Your task to perform on an android device: What's the weather today? Image 0: 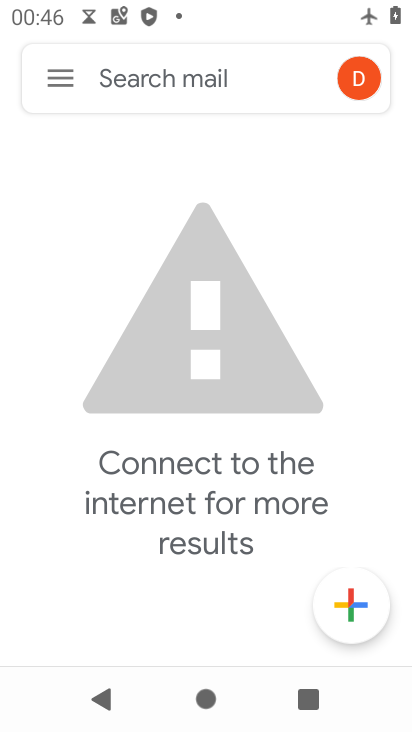
Step 0: press home button
Your task to perform on an android device: What's the weather today? Image 1: 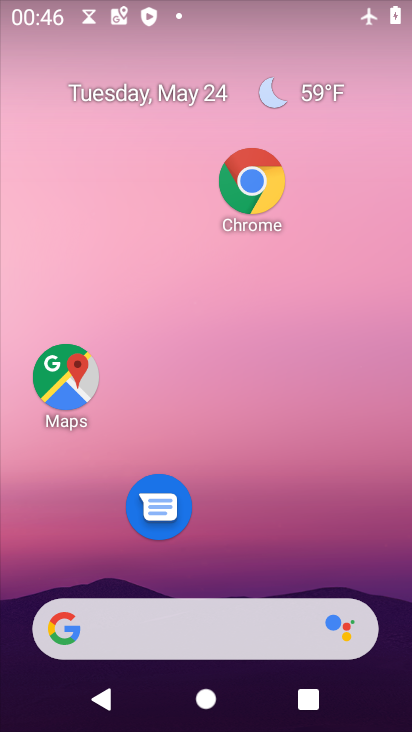
Step 1: click (264, 170)
Your task to perform on an android device: What's the weather today? Image 2: 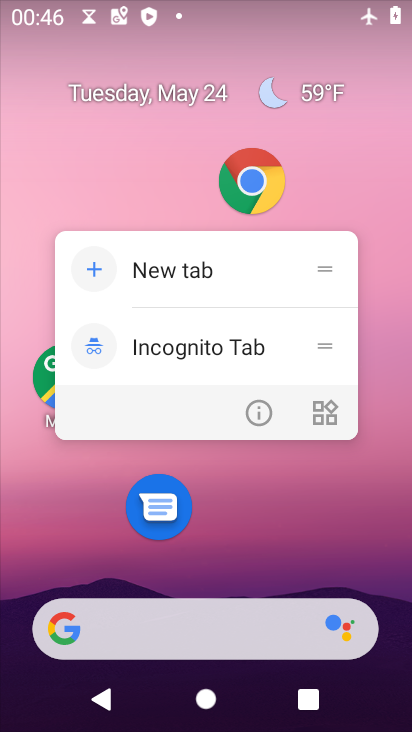
Step 2: click (264, 161)
Your task to perform on an android device: What's the weather today? Image 3: 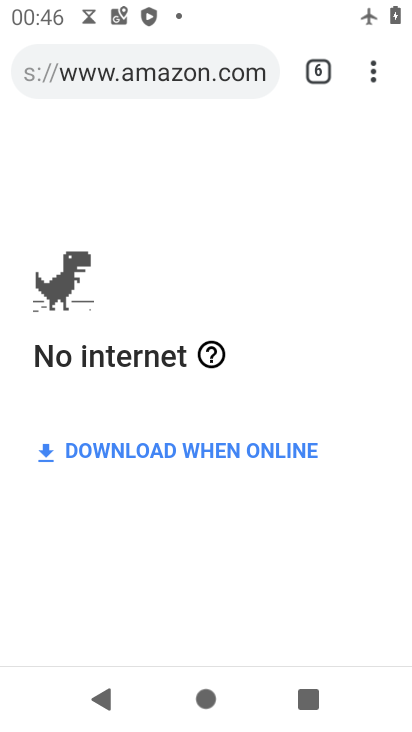
Step 3: click (359, 64)
Your task to perform on an android device: What's the weather today? Image 4: 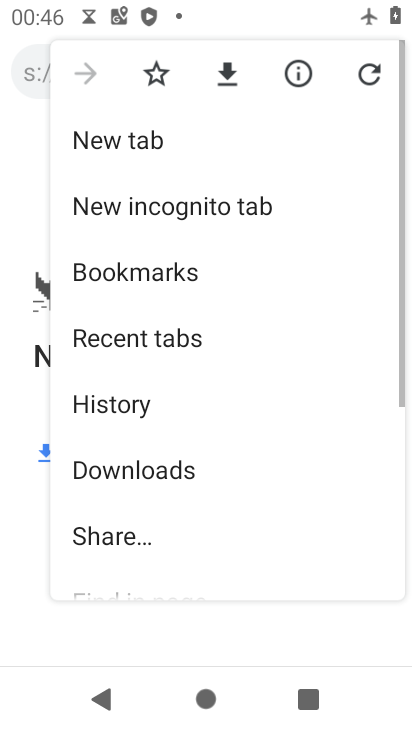
Step 4: click (157, 123)
Your task to perform on an android device: What's the weather today? Image 5: 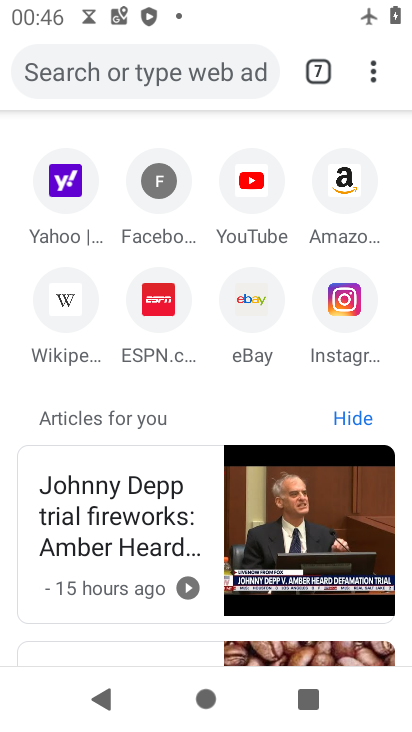
Step 5: click (151, 47)
Your task to perform on an android device: What's the weather today? Image 6: 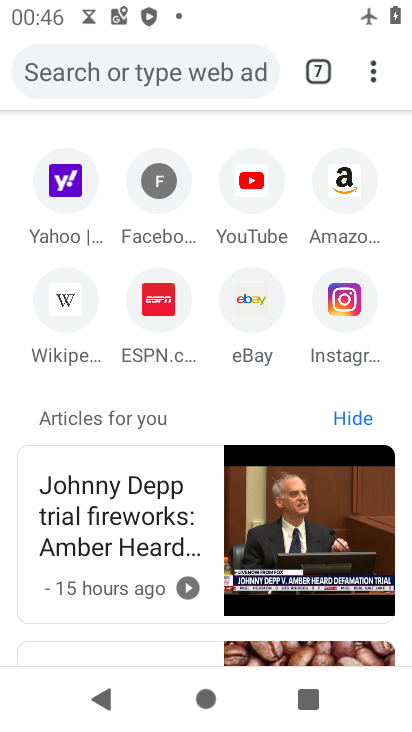
Step 6: click (157, 60)
Your task to perform on an android device: What's the weather today? Image 7: 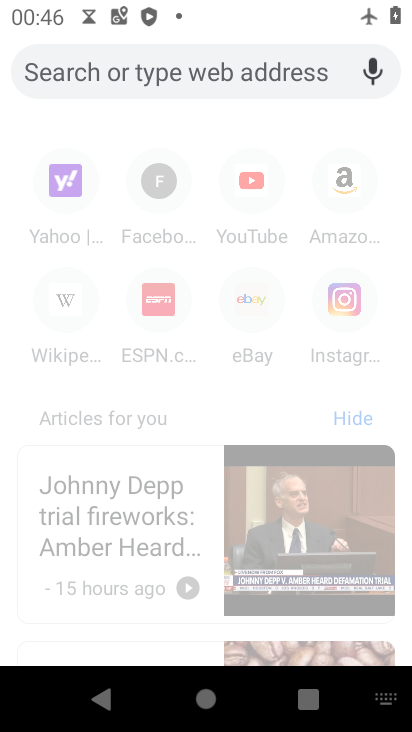
Step 7: type "What's the weather going to be this weekend?"
Your task to perform on an android device: What's the weather today? Image 8: 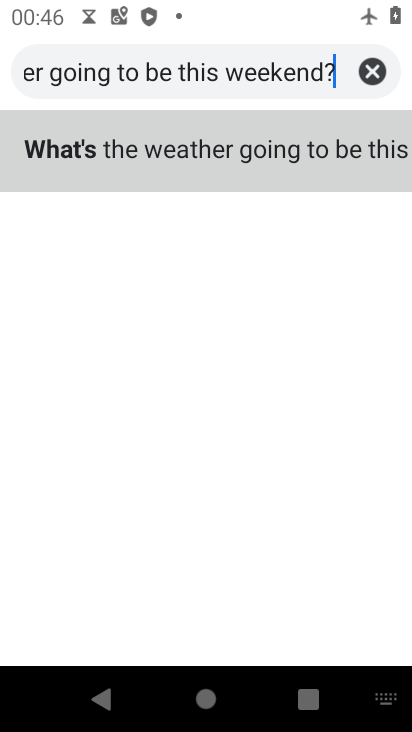
Step 8: click (215, 143)
Your task to perform on an android device: What's the weather today? Image 9: 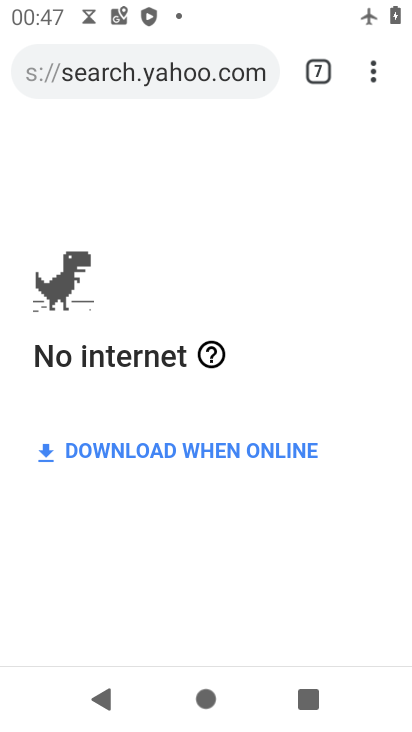
Step 9: task complete